Your task to perform on an android device: turn pop-ups off in chrome Image 0: 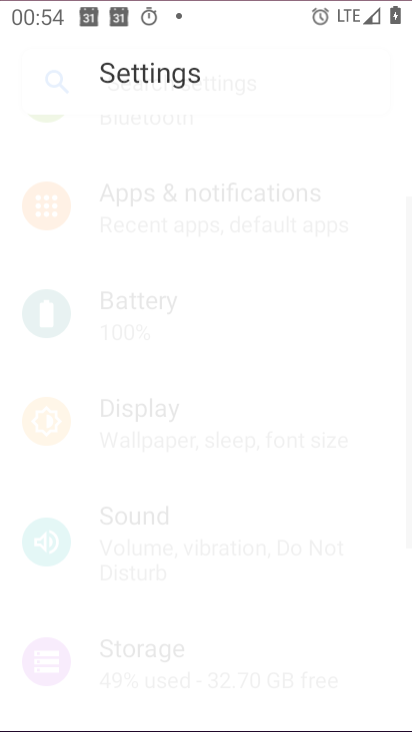
Step 0: press home button
Your task to perform on an android device: turn pop-ups off in chrome Image 1: 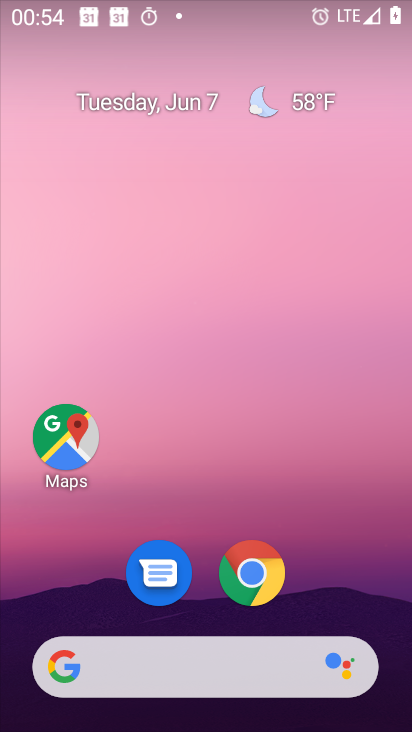
Step 1: click (269, 569)
Your task to perform on an android device: turn pop-ups off in chrome Image 2: 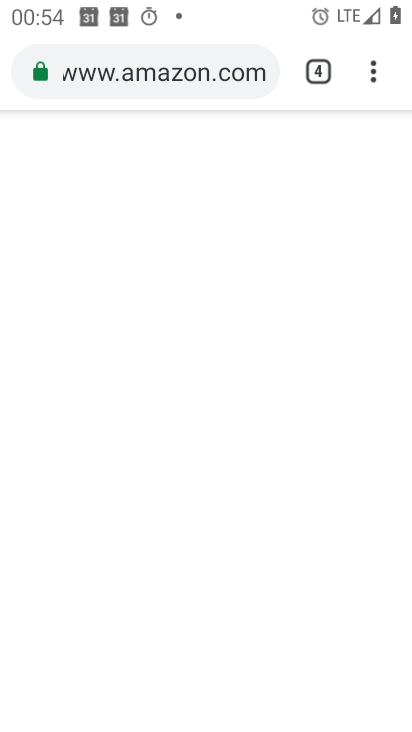
Step 2: drag from (368, 85) to (149, 577)
Your task to perform on an android device: turn pop-ups off in chrome Image 3: 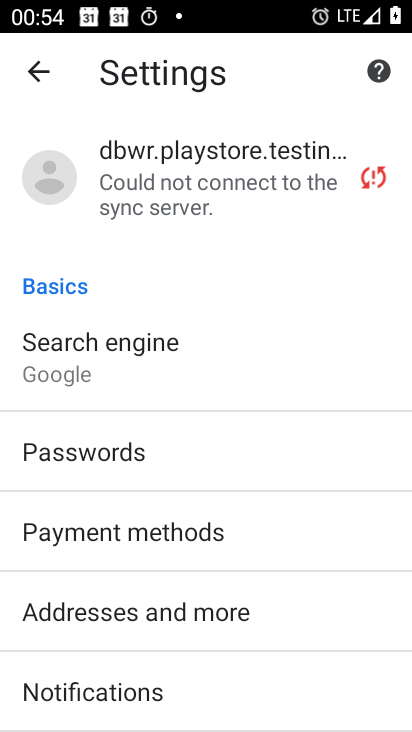
Step 3: drag from (170, 659) to (124, 228)
Your task to perform on an android device: turn pop-ups off in chrome Image 4: 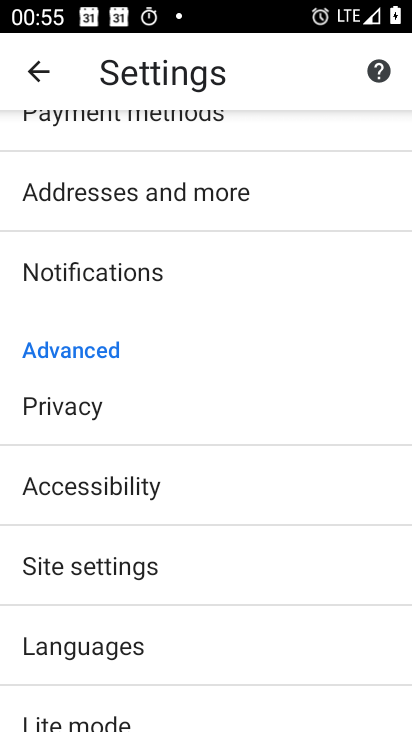
Step 4: click (98, 572)
Your task to perform on an android device: turn pop-ups off in chrome Image 5: 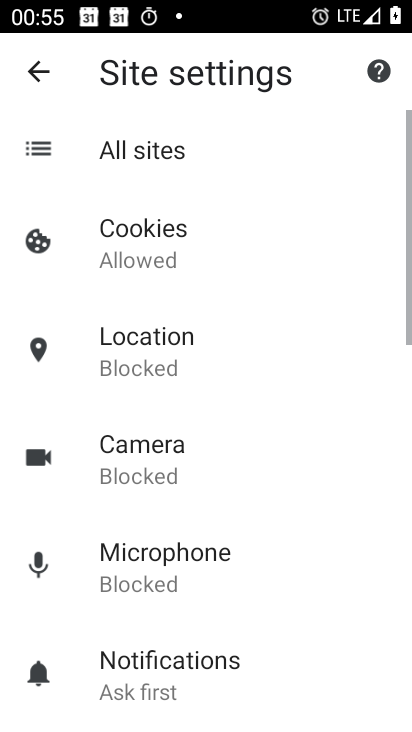
Step 5: drag from (187, 596) to (132, 243)
Your task to perform on an android device: turn pop-ups off in chrome Image 6: 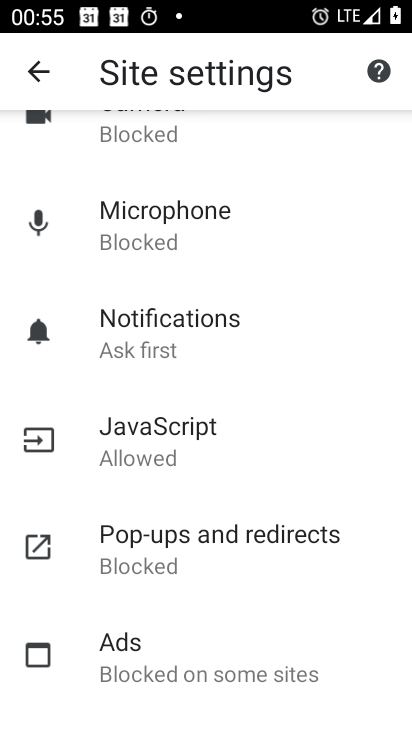
Step 6: click (158, 547)
Your task to perform on an android device: turn pop-ups off in chrome Image 7: 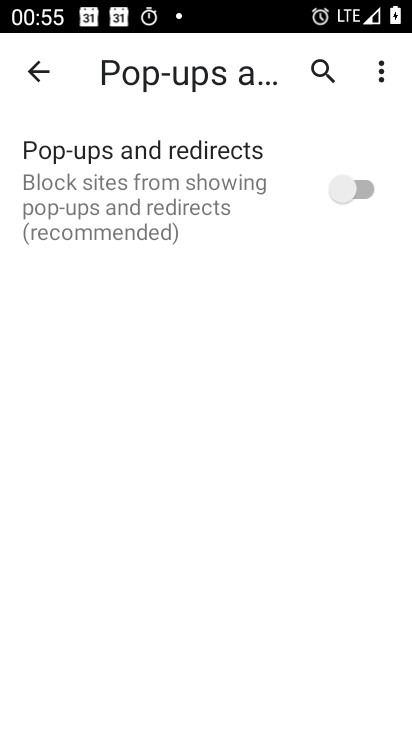
Step 7: task complete